Your task to perform on an android device: Open Google Maps Image 0: 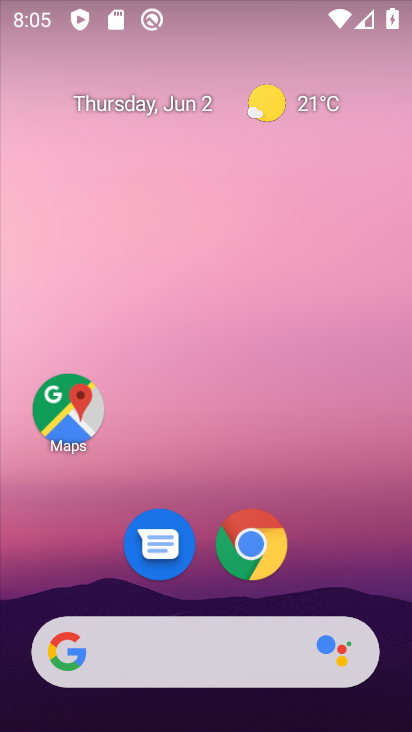
Step 0: click (72, 429)
Your task to perform on an android device: Open Google Maps Image 1: 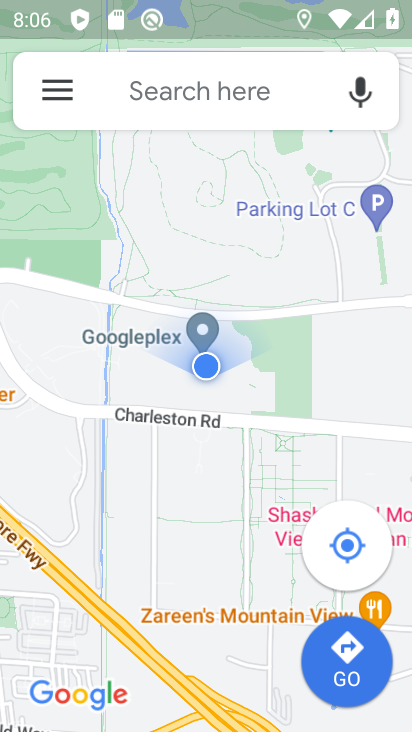
Step 1: task complete